Your task to perform on an android device: Search for "apple airpods pro" on walmart.com, select the first entry, add it to the cart, then select checkout. Image 0: 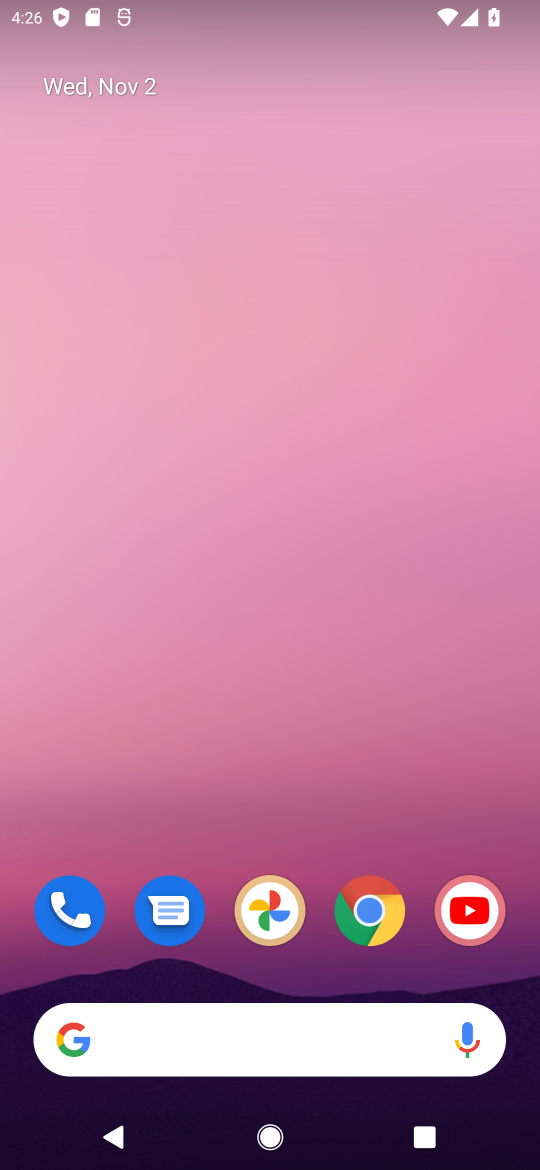
Step 0: click (366, 911)
Your task to perform on an android device: Search for "apple airpods pro" on walmart.com, select the first entry, add it to the cart, then select checkout. Image 1: 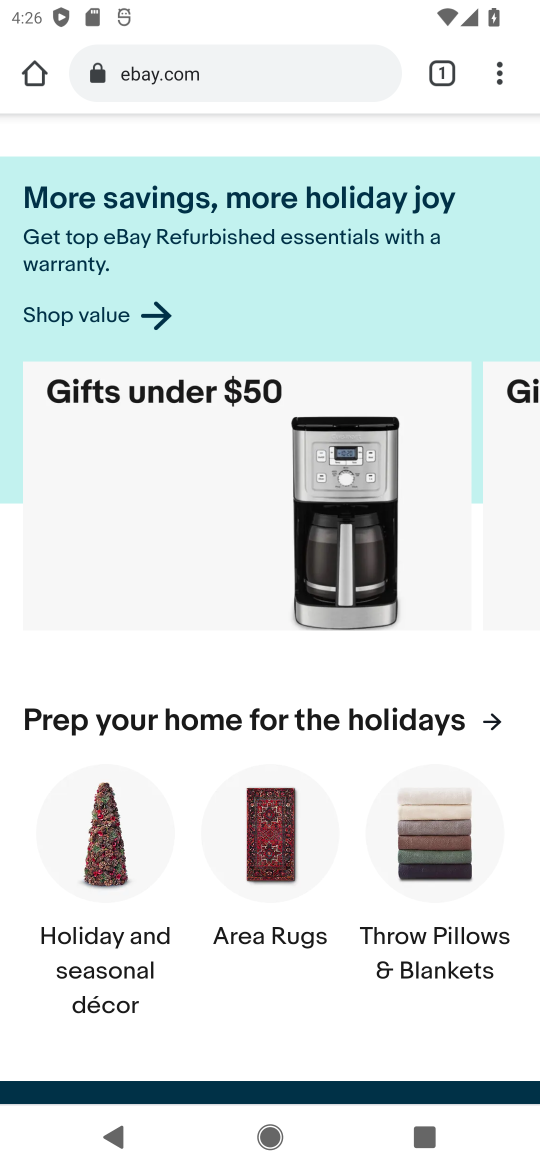
Step 1: click (239, 92)
Your task to perform on an android device: Search for "apple airpods pro" on walmart.com, select the first entry, add it to the cart, then select checkout. Image 2: 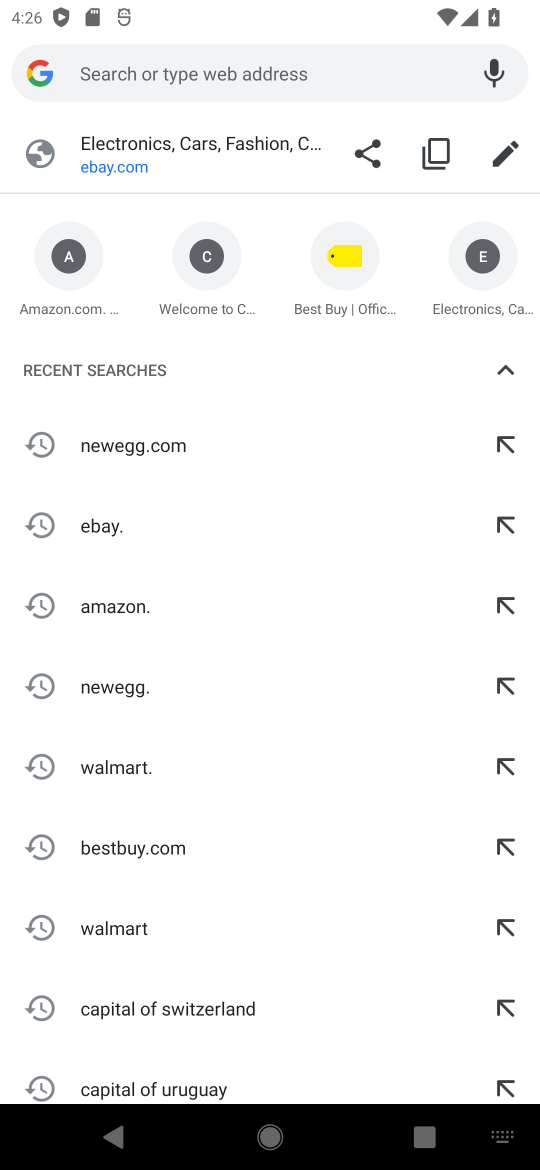
Step 2: type "walmart.com"
Your task to perform on an android device: Search for "apple airpods pro" on walmart.com, select the first entry, add it to the cart, then select checkout. Image 3: 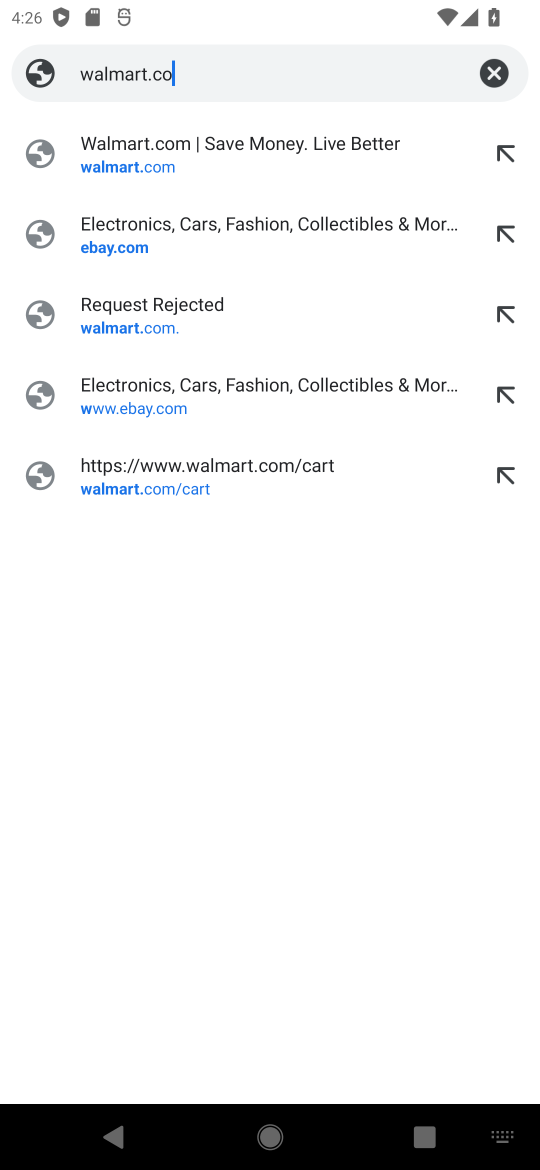
Step 3: type ""
Your task to perform on an android device: Search for "apple airpods pro" on walmart.com, select the first entry, add it to the cart, then select checkout. Image 4: 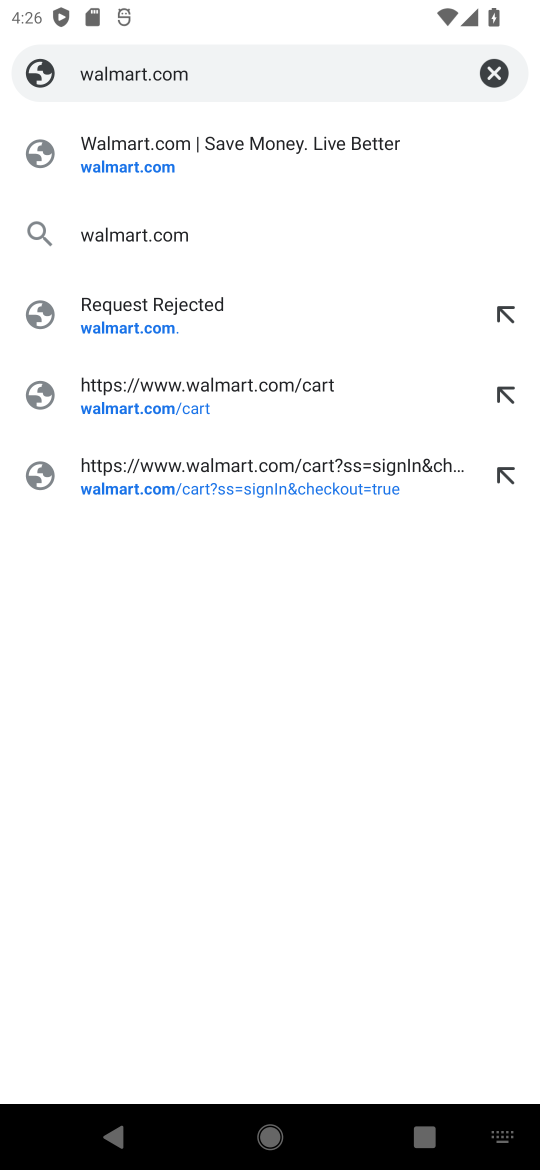
Step 4: click (327, 163)
Your task to perform on an android device: Search for "apple airpods pro" on walmart.com, select the first entry, add it to the cart, then select checkout. Image 5: 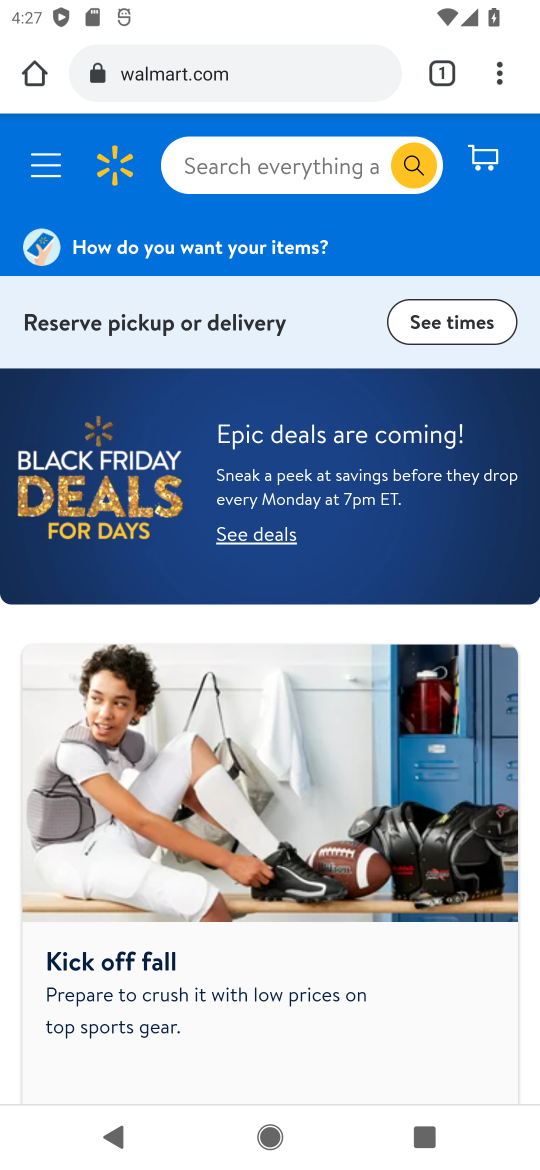
Step 5: click (294, 174)
Your task to perform on an android device: Search for "apple airpods pro" on walmart.com, select the first entry, add it to the cart, then select checkout. Image 6: 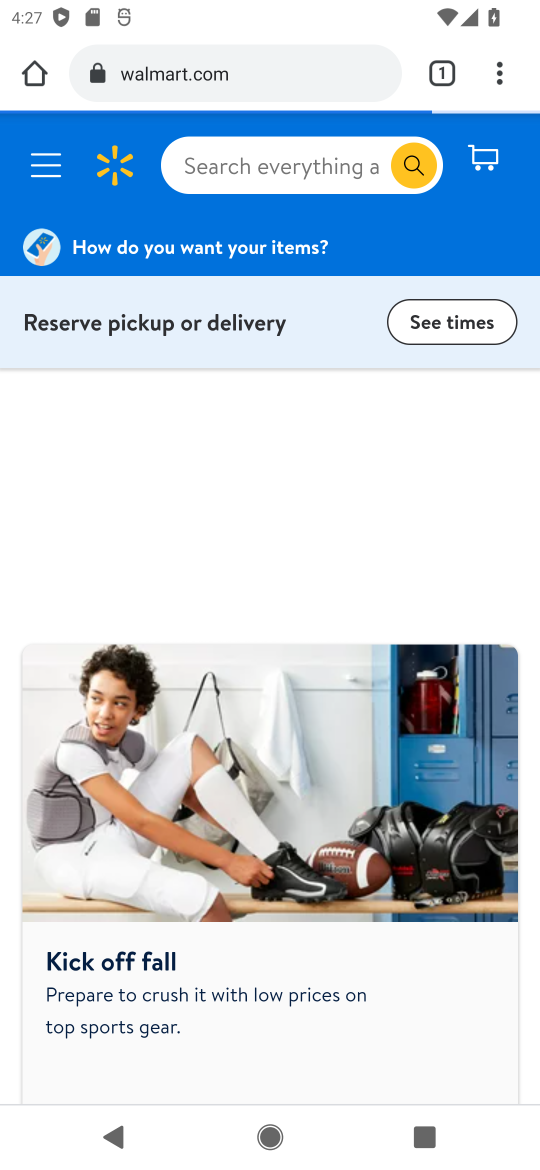
Step 6: click (233, 166)
Your task to perform on an android device: Search for "apple airpods pro" on walmart.com, select the first entry, add it to the cart, then select checkout. Image 7: 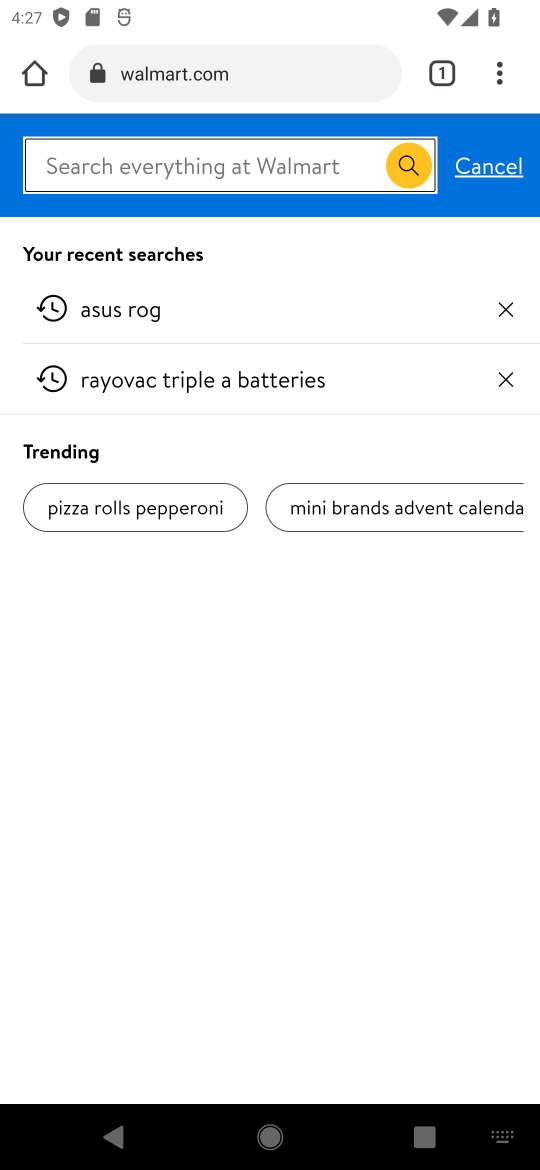
Step 7: type "apple airpods pro"
Your task to perform on an android device: Search for "apple airpods pro" on walmart.com, select the first entry, add it to the cart, then select checkout. Image 8: 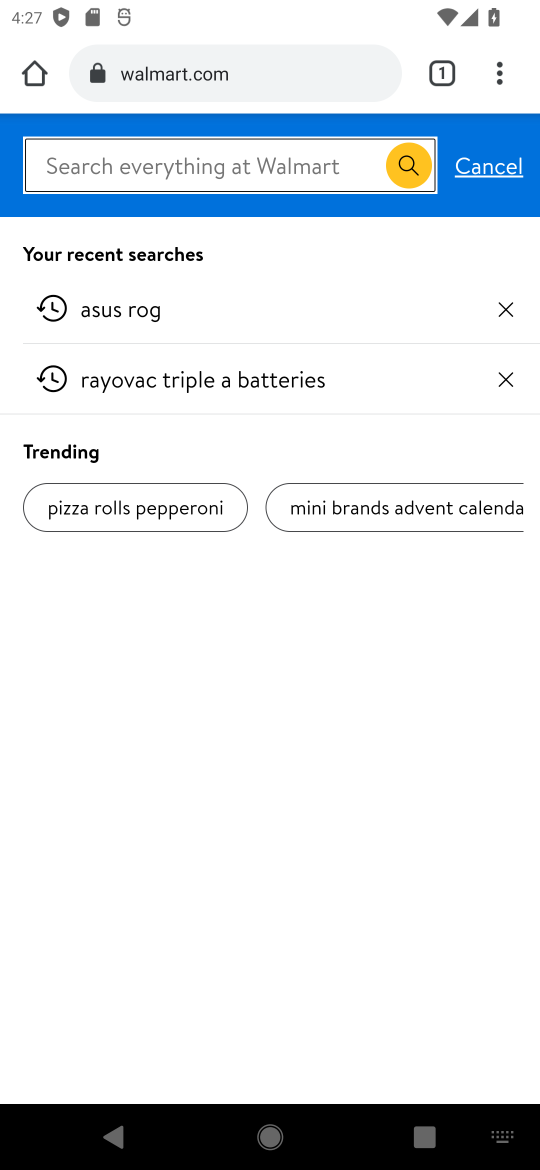
Step 8: type ""
Your task to perform on an android device: Search for "apple airpods pro" on walmart.com, select the first entry, add it to the cart, then select checkout. Image 9: 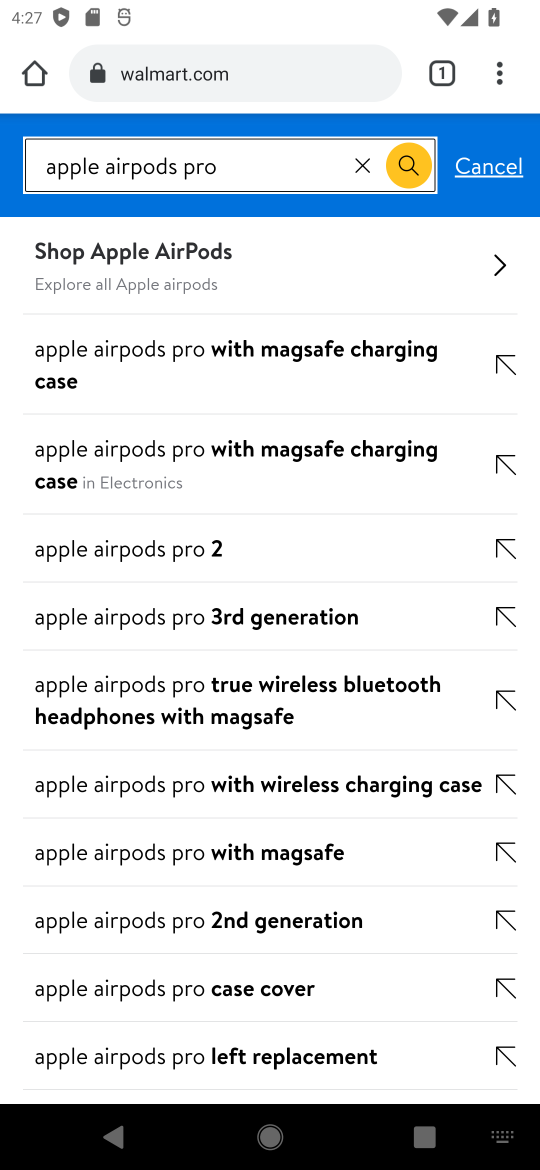
Step 9: click (418, 158)
Your task to perform on an android device: Search for "apple airpods pro" on walmart.com, select the first entry, add it to the cart, then select checkout. Image 10: 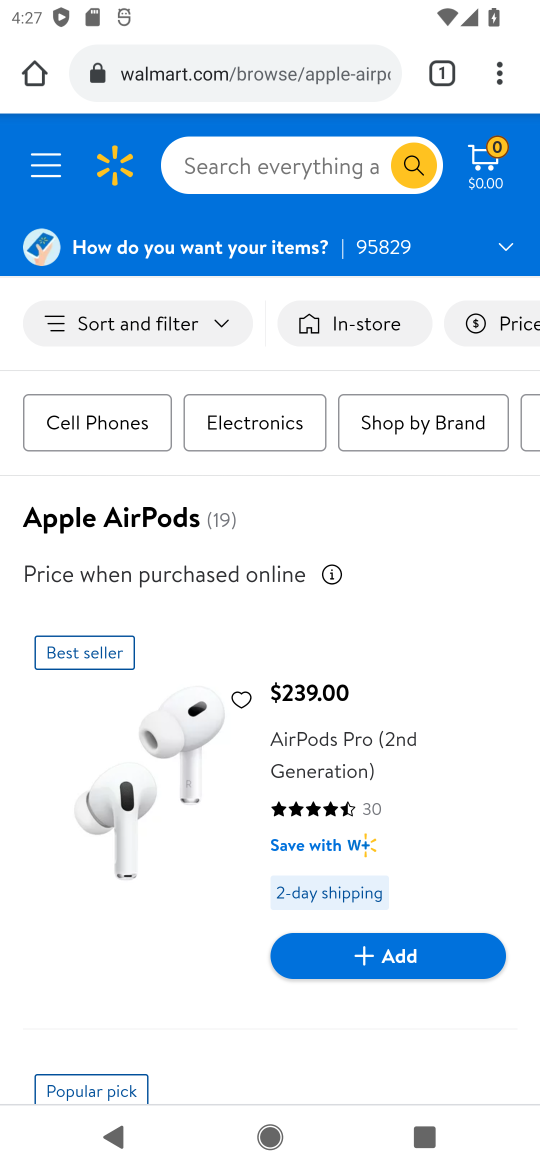
Step 10: click (353, 952)
Your task to perform on an android device: Search for "apple airpods pro" on walmart.com, select the first entry, add it to the cart, then select checkout. Image 11: 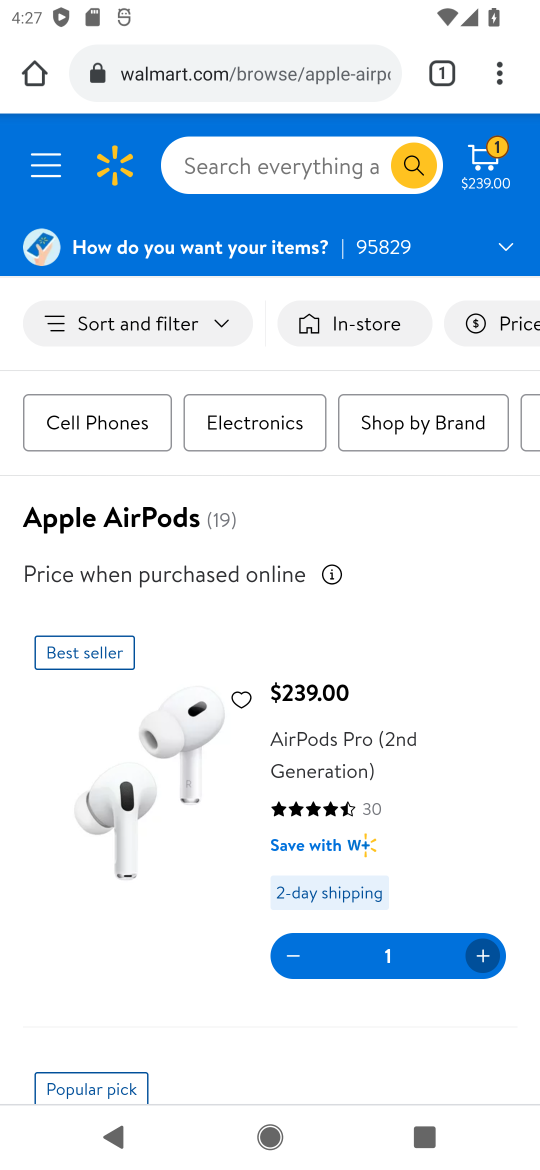
Step 11: click (475, 172)
Your task to perform on an android device: Search for "apple airpods pro" on walmart.com, select the first entry, add it to the cart, then select checkout. Image 12: 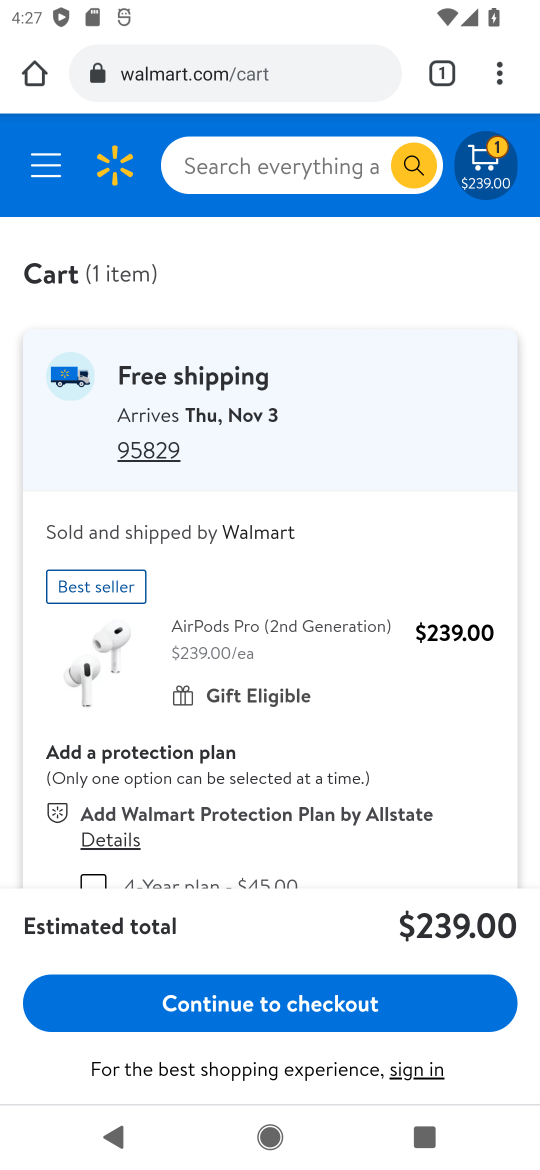
Step 12: drag from (369, 833) to (400, 370)
Your task to perform on an android device: Search for "apple airpods pro" on walmart.com, select the first entry, add it to the cart, then select checkout. Image 13: 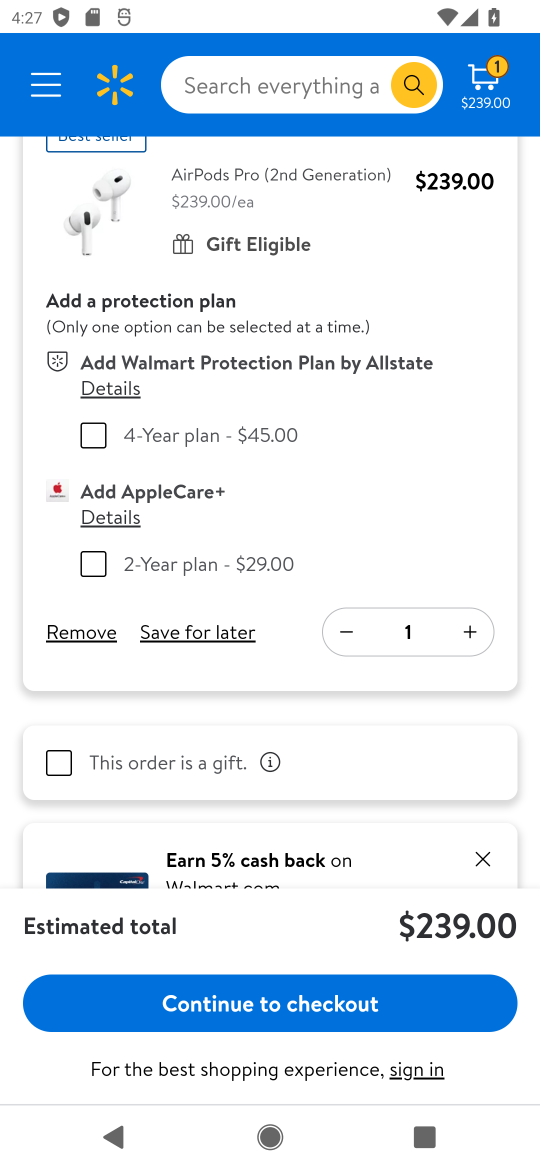
Step 13: drag from (277, 697) to (290, 389)
Your task to perform on an android device: Search for "apple airpods pro" on walmart.com, select the first entry, add it to the cart, then select checkout. Image 14: 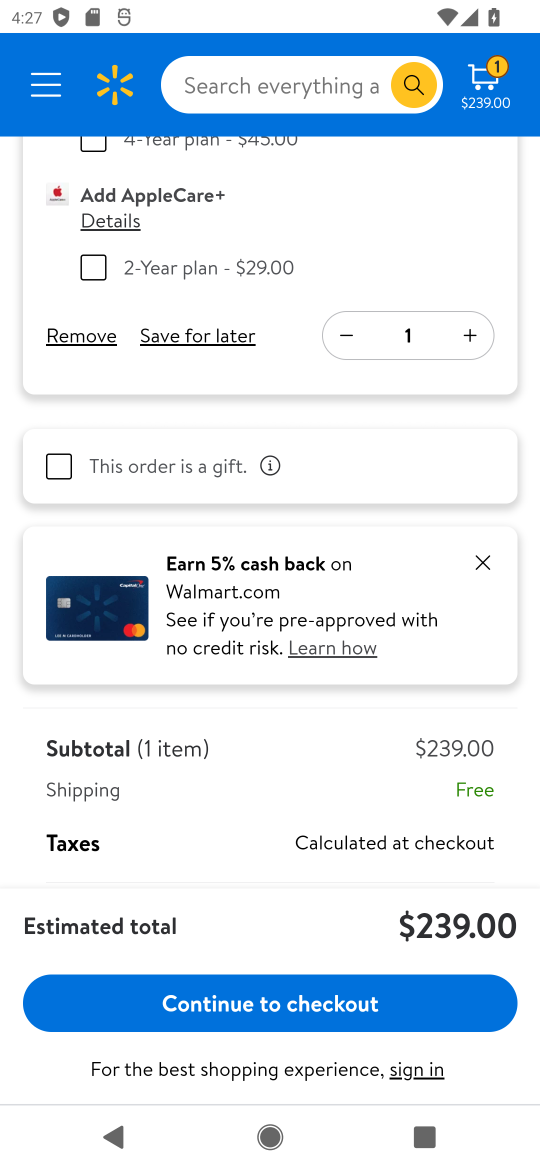
Step 14: click (477, 557)
Your task to perform on an android device: Search for "apple airpods pro" on walmart.com, select the first entry, add it to the cart, then select checkout. Image 15: 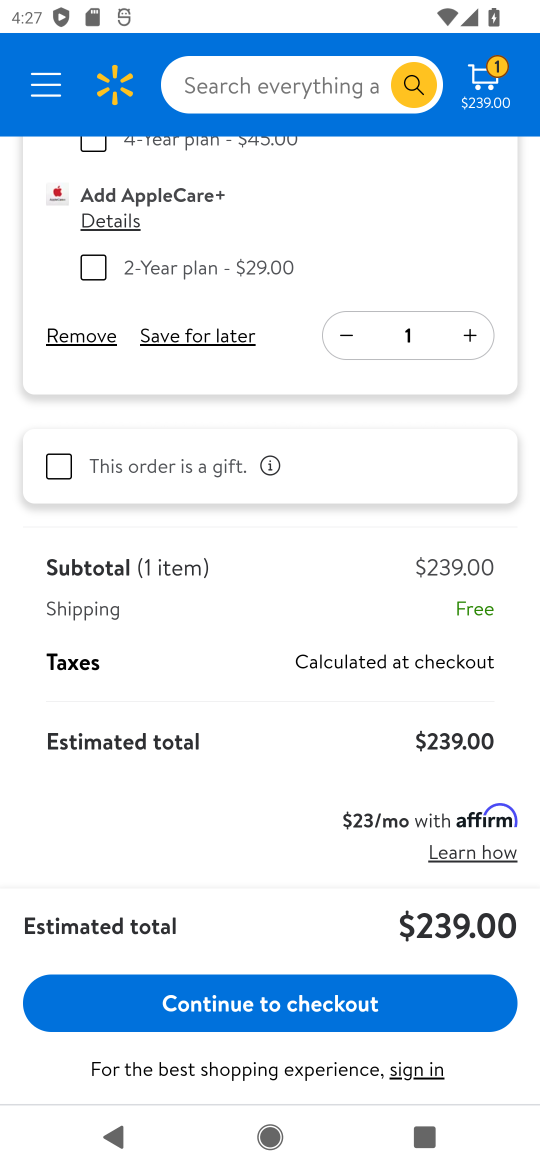
Step 15: click (360, 1011)
Your task to perform on an android device: Search for "apple airpods pro" on walmart.com, select the first entry, add it to the cart, then select checkout. Image 16: 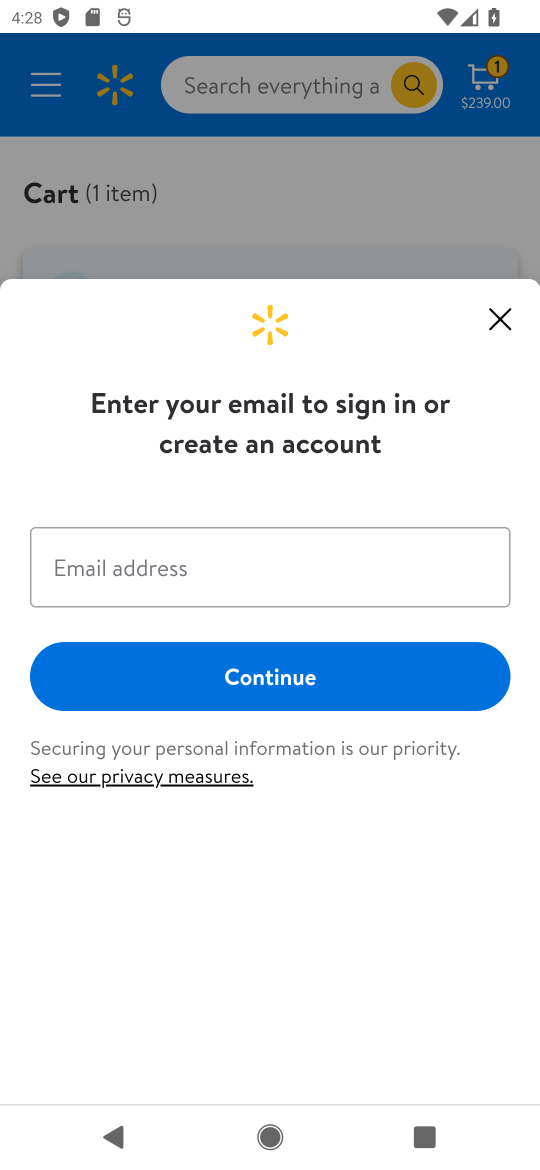
Step 16: drag from (339, 797) to (506, 323)
Your task to perform on an android device: Search for "apple airpods pro" on walmart.com, select the first entry, add it to the cart, then select checkout. Image 17: 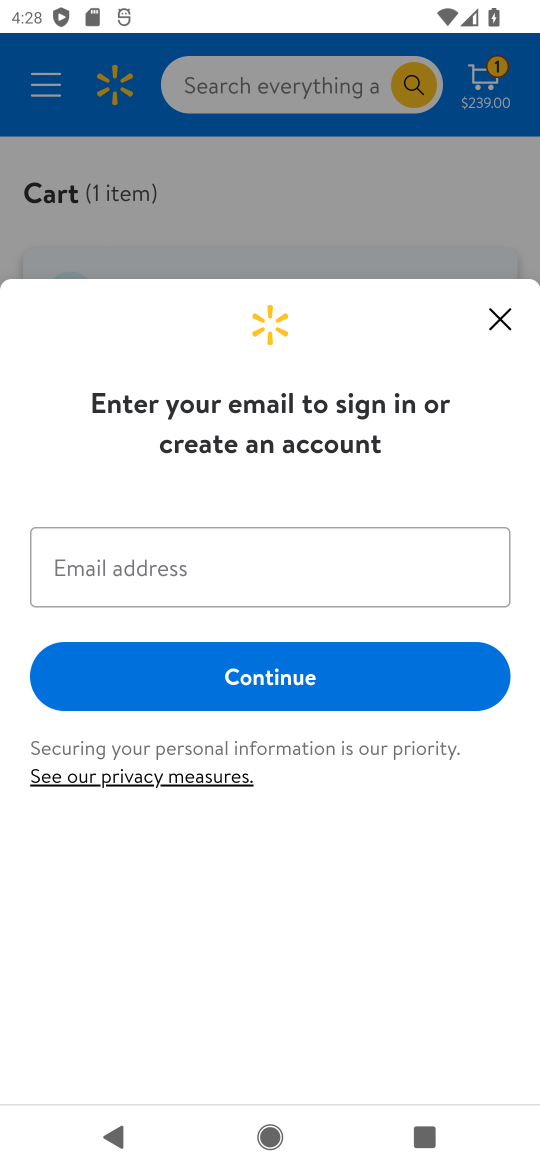
Step 17: click (495, 315)
Your task to perform on an android device: Search for "apple airpods pro" on walmart.com, select the first entry, add it to the cart, then select checkout. Image 18: 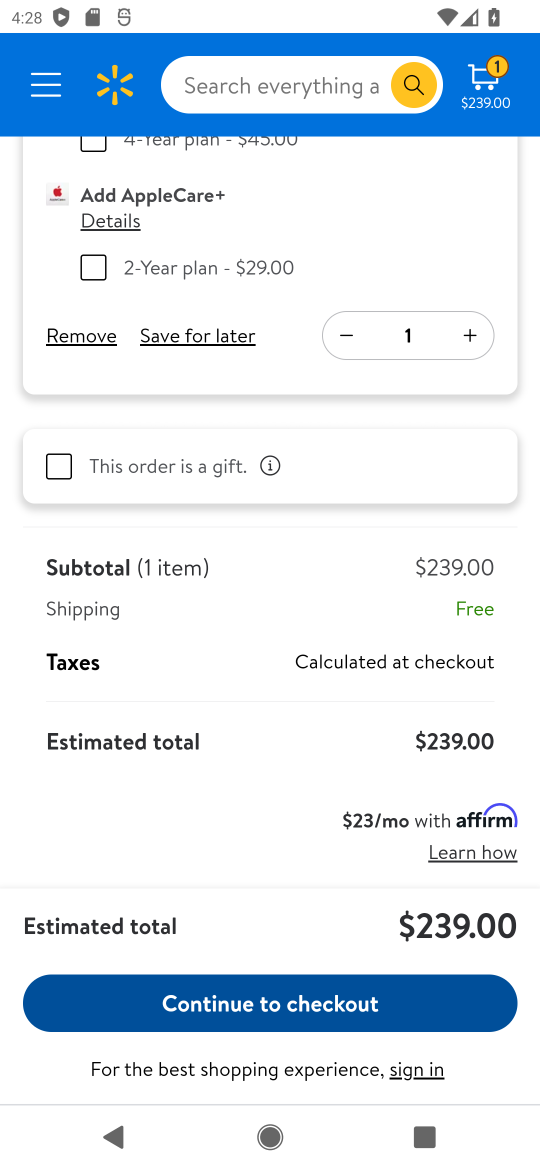
Step 18: click (291, 1016)
Your task to perform on an android device: Search for "apple airpods pro" on walmart.com, select the first entry, add it to the cart, then select checkout. Image 19: 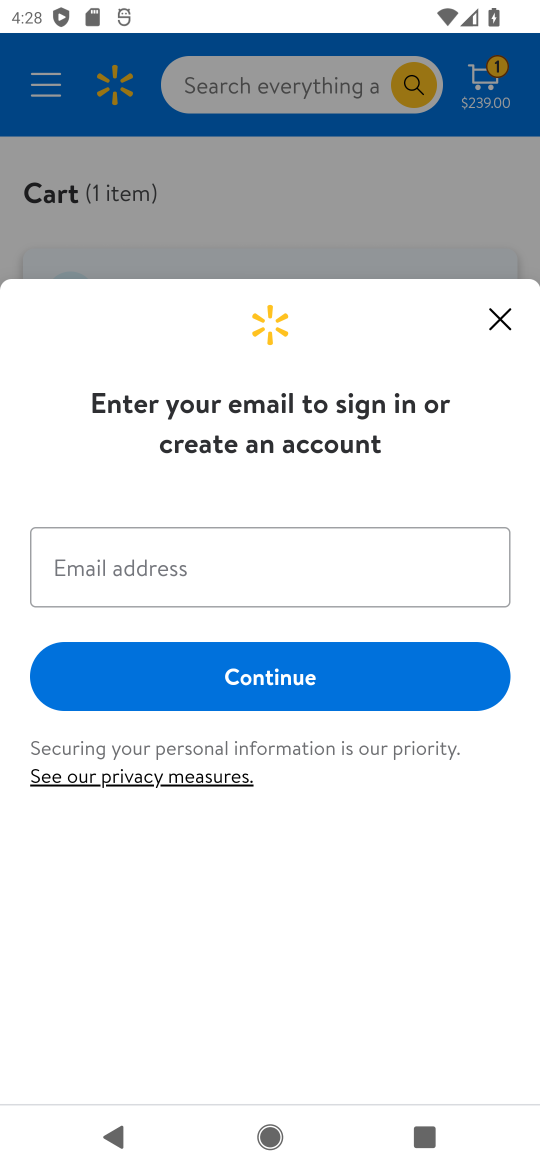
Step 19: click (496, 303)
Your task to perform on an android device: Search for "apple airpods pro" on walmart.com, select the first entry, add it to the cart, then select checkout. Image 20: 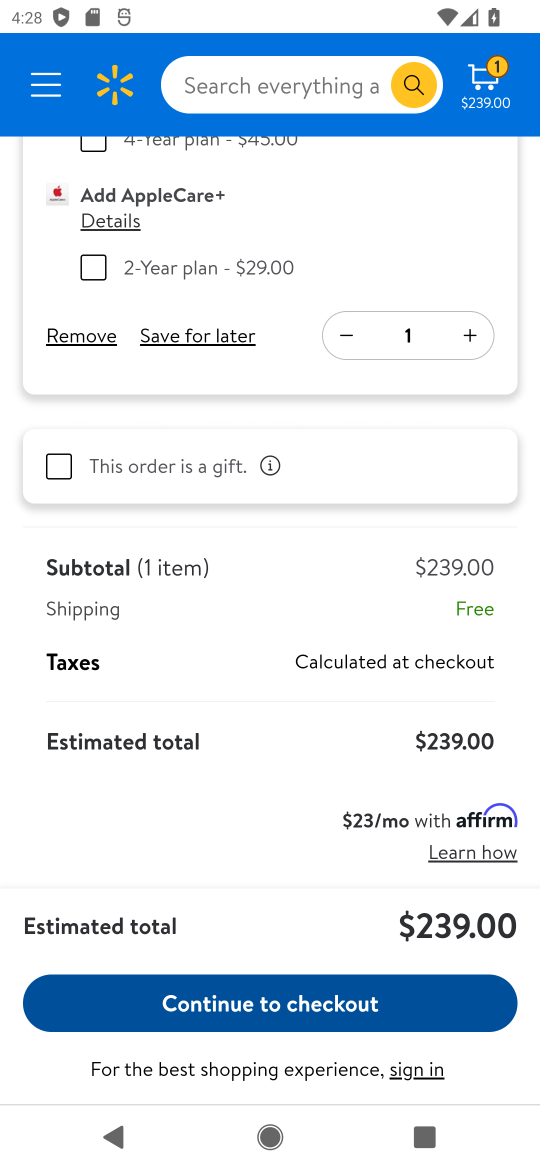
Step 20: task complete